Your task to perform on an android device: find photos in the google photos app Image 0: 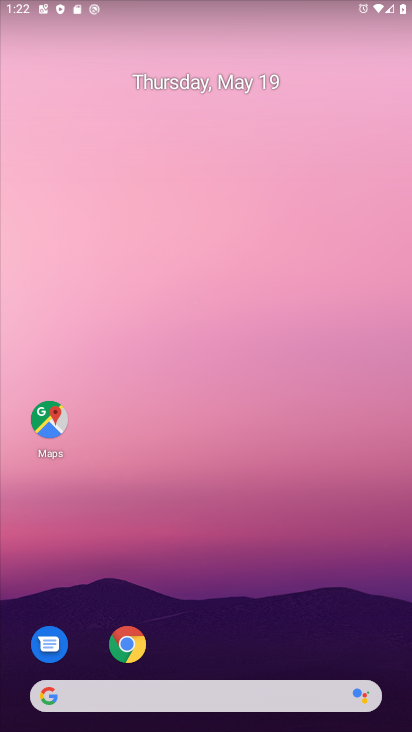
Step 0: drag from (332, 607) to (113, 177)
Your task to perform on an android device: find photos in the google photos app Image 1: 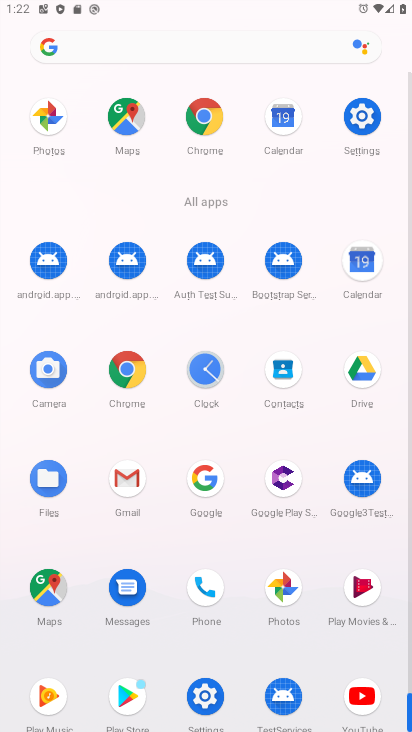
Step 1: click (285, 592)
Your task to perform on an android device: find photos in the google photos app Image 2: 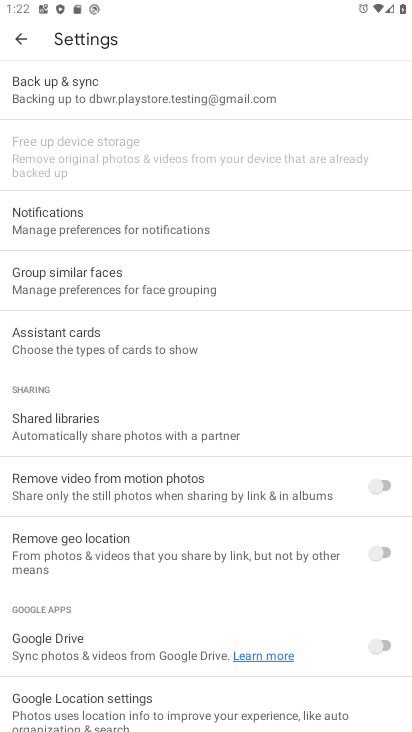
Step 2: click (19, 38)
Your task to perform on an android device: find photos in the google photos app Image 3: 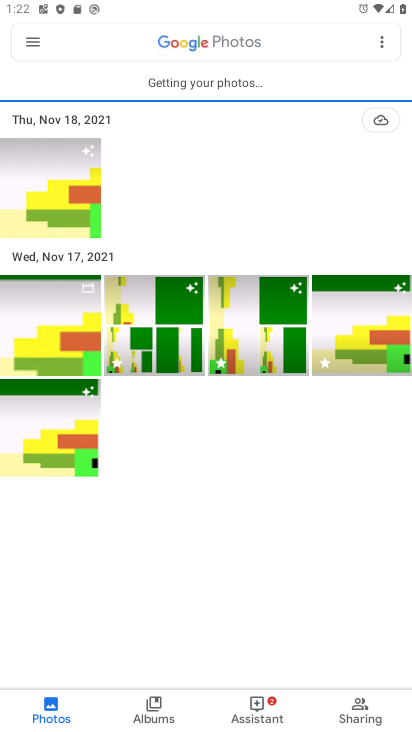
Step 3: press back button
Your task to perform on an android device: find photos in the google photos app Image 4: 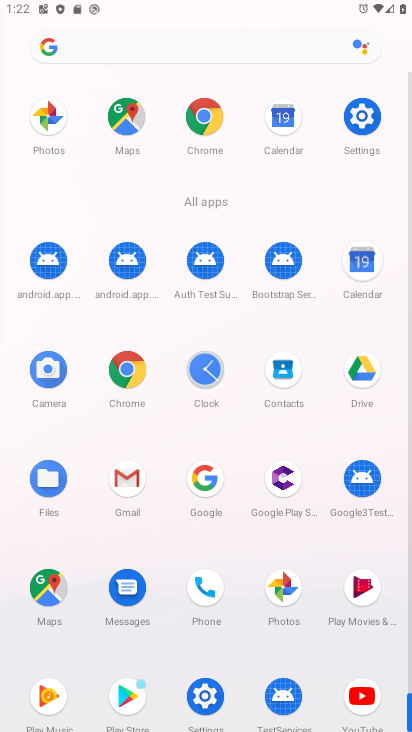
Step 4: click (217, 144)
Your task to perform on an android device: find photos in the google photos app Image 5: 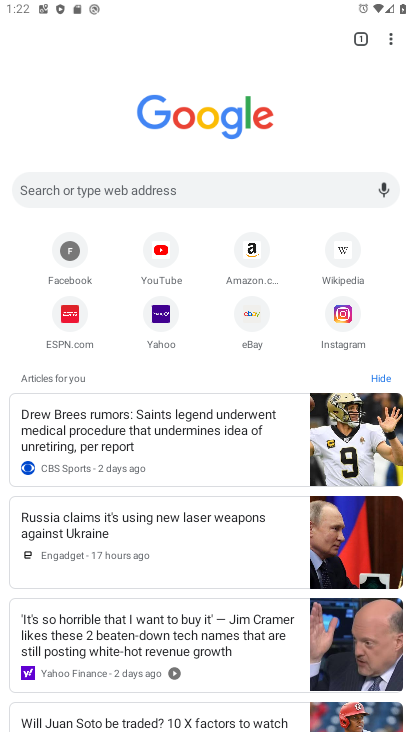
Step 5: press back button
Your task to perform on an android device: find photos in the google photos app Image 6: 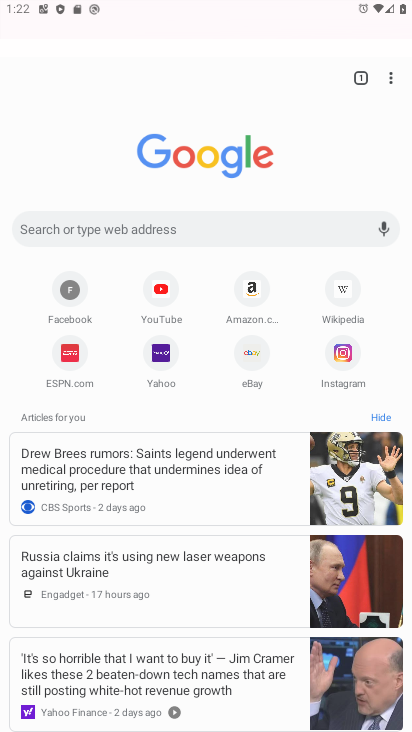
Step 6: press back button
Your task to perform on an android device: find photos in the google photos app Image 7: 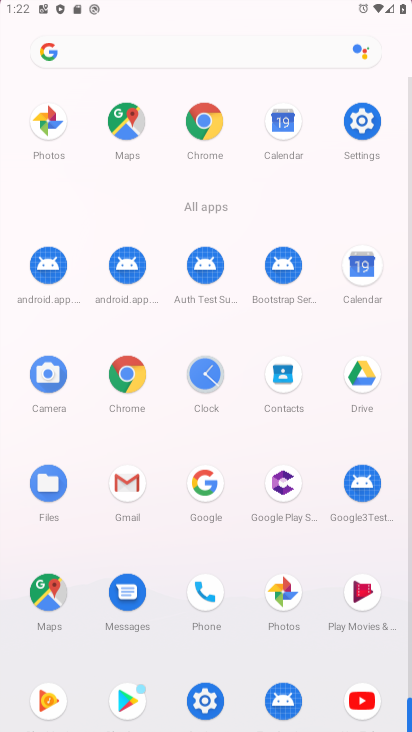
Step 7: press back button
Your task to perform on an android device: find photos in the google photos app Image 8: 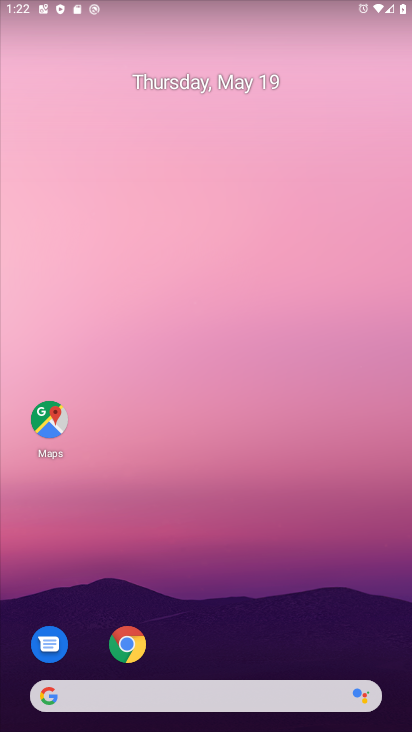
Step 8: press back button
Your task to perform on an android device: find photos in the google photos app Image 9: 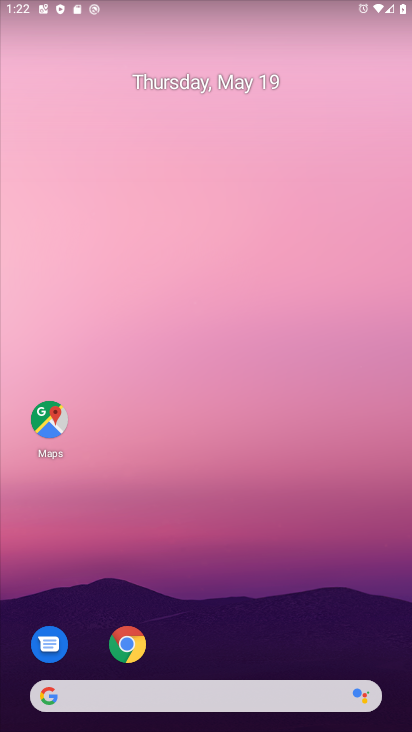
Step 9: drag from (328, 623) to (146, 29)
Your task to perform on an android device: find photos in the google photos app Image 10: 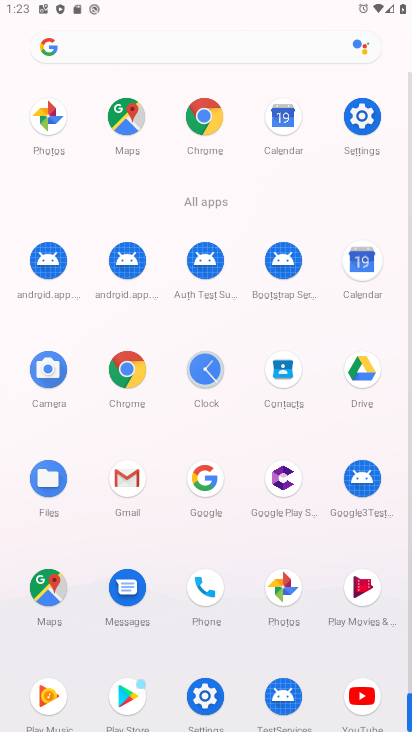
Step 10: click (280, 595)
Your task to perform on an android device: find photos in the google photos app Image 11: 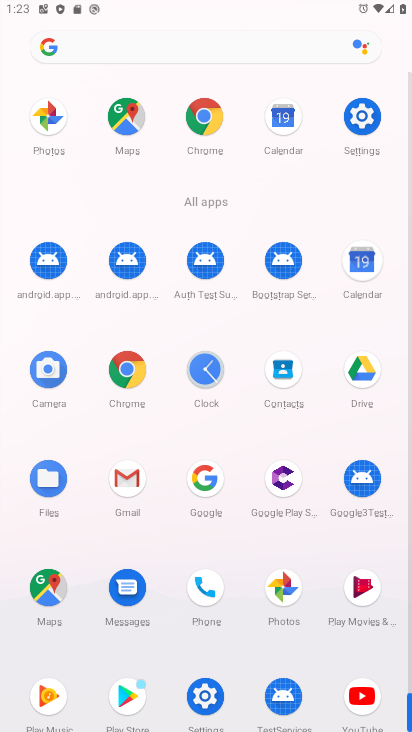
Step 11: click (283, 591)
Your task to perform on an android device: find photos in the google photos app Image 12: 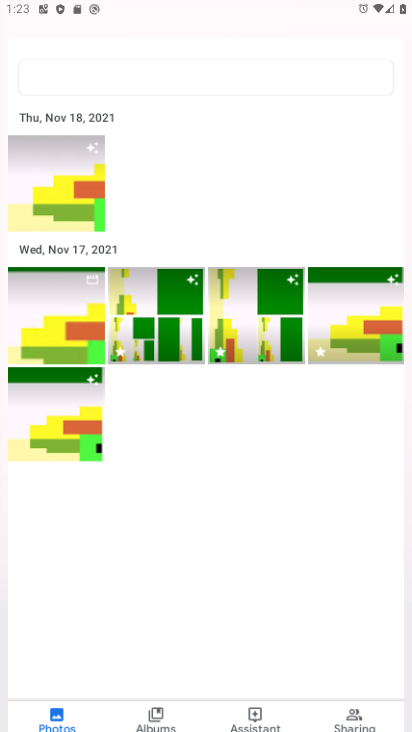
Step 12: click (284, 590)
Your task to perform on an android device: find photos in the google photos app Image 13: 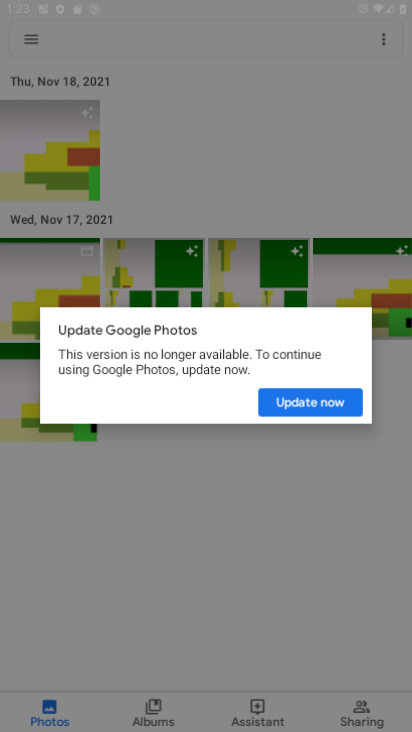
Step 13: click (284, 591)
Your task to perform on an android device: find photos in the google photos app Image 14: 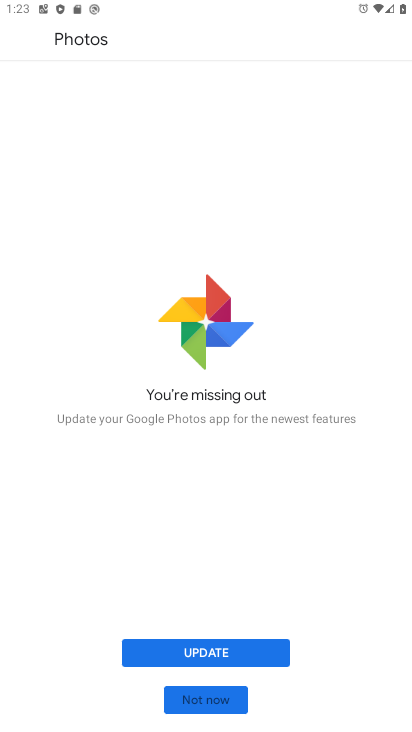
Step 14: click (280, 579)
Your task to perform on an android device: find photos in the google photos app Image 15: 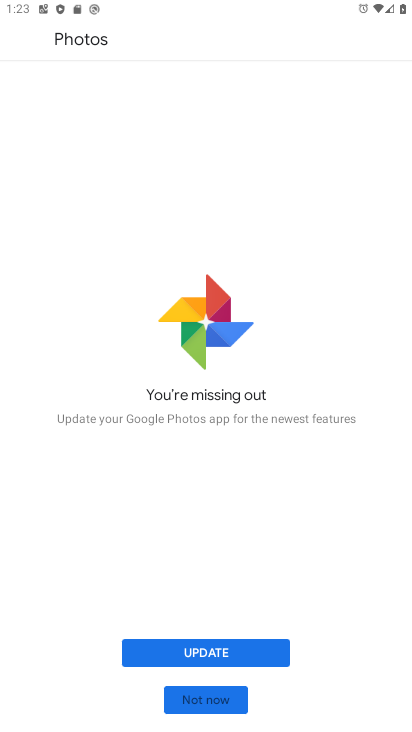
Step 15: click (206, 708)
Your task to perform on an android device: find photos in the google photos app Image 16: 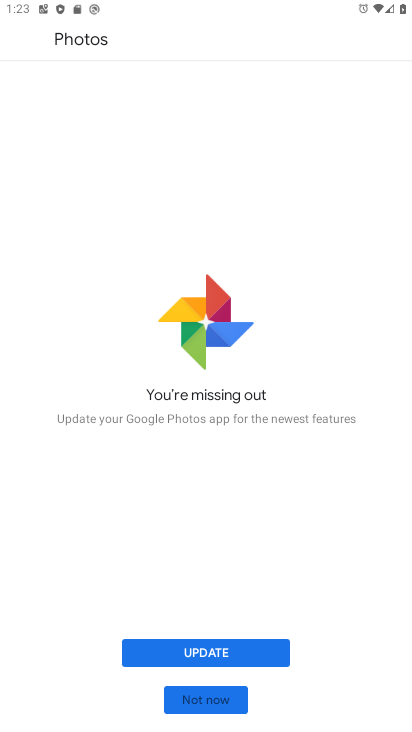
Step 16: click (206, 709)
Your task to perform on an android device: find photos in the google photos app Image 17: 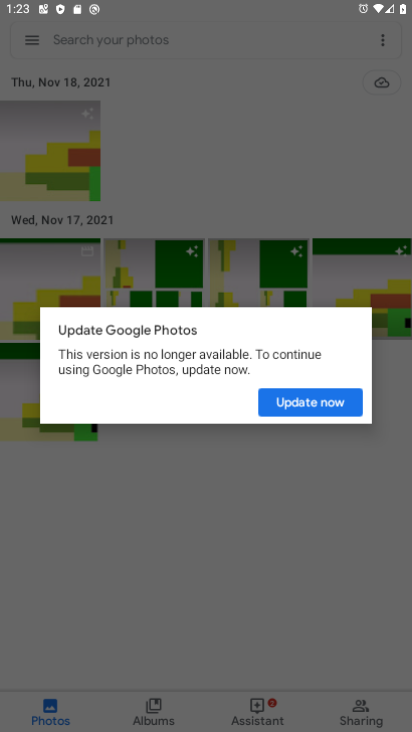
Step 17: click (206, 710)
Your task to perform on an android device: find photos in the google photos app Image 18: 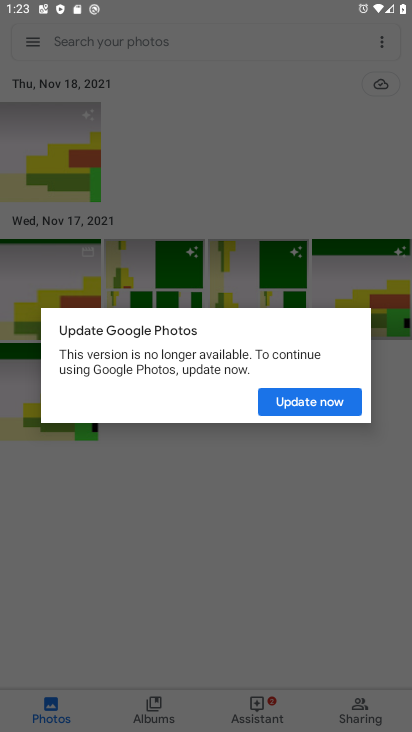
Step 18: click (316, 400)
Your task to perform on an android device: find photos in the google photos app Image 19: 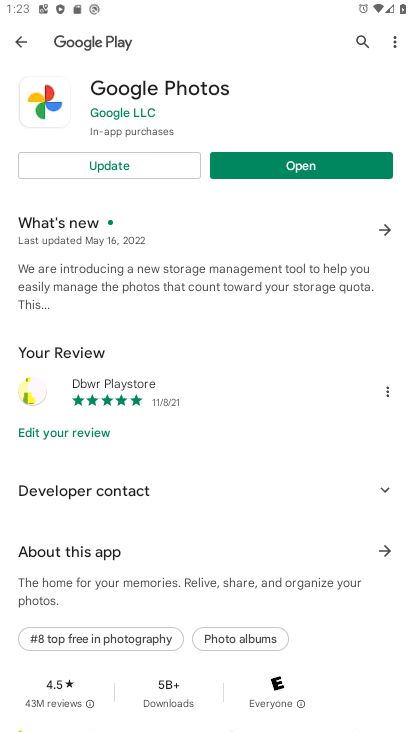
Step 19: click (136, 163)
Your task to perform on an android device: find photos in the google photos app Image 20: 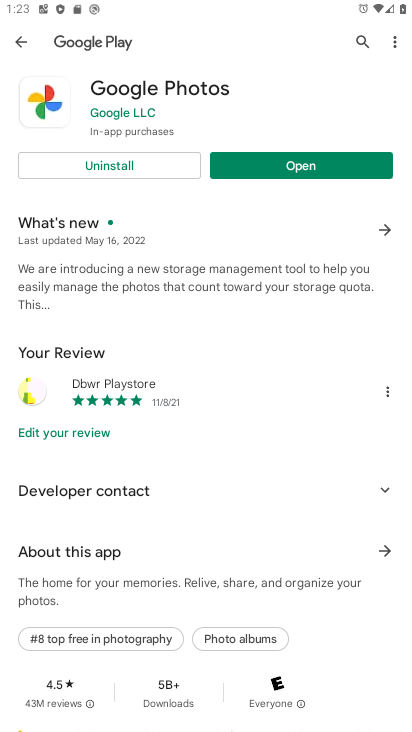
Step 20: click (279, 166)
Your task to perform on an android device: find photos in the google photos app Image 21: 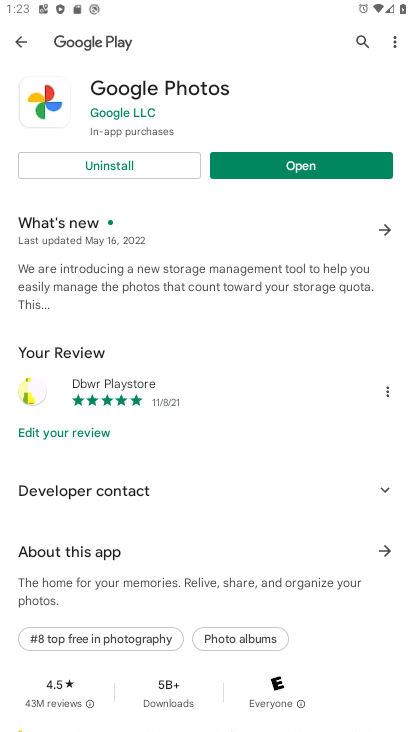
Step 21: click (285, 167)
Your task to perform on an android device: find photos in the google photos app Image 22: 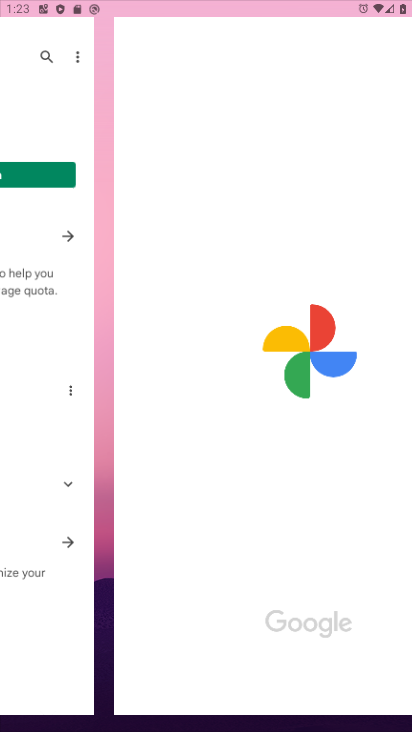
Step 22: click (286, 170)
Your task to perform on an android device: find photos in the google photos app Image 23: 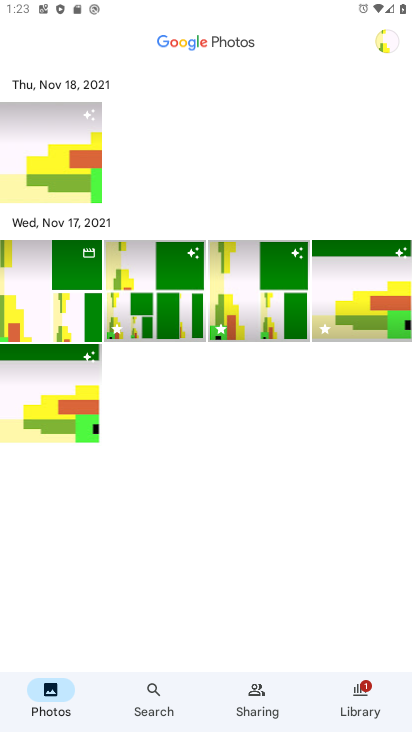
Step 23: task complete